Your task to perform on an android device: What's on my calendar tomorrow? Image 0: 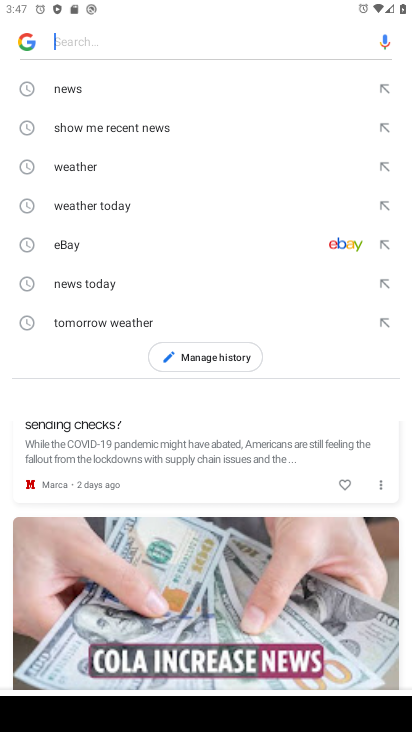
Step 0: press home button
Your task to perform on an android device: What's on my calendar tomorrow? Image 1: 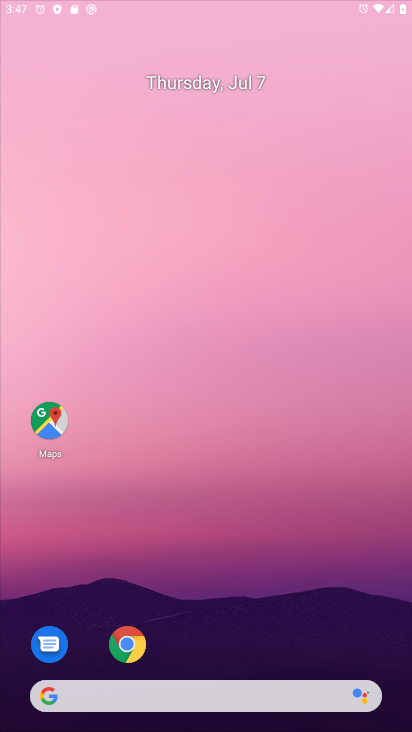
Step 1: drag from (203, 643) to (189, 25)
Your task to perform on an android device: What's on my calendar tomorrow? Image 2: 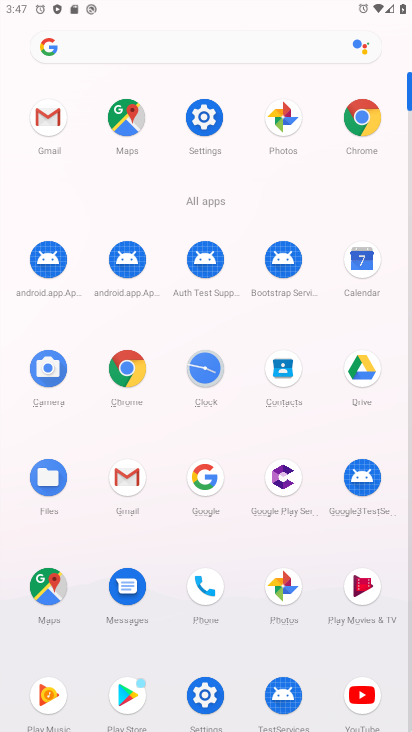
Step 2: click (369, 279)
Your task to perform on an android device: What's on my calendar tomorrow? Image 3: 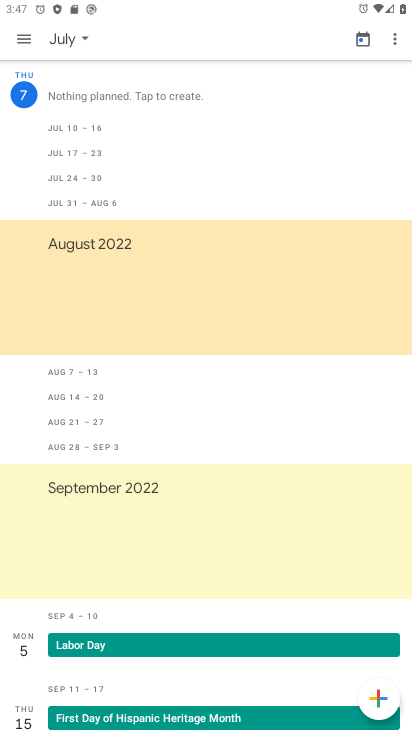
Step 3: click (89, 47)
Your task to perform on an android device: What's on my calendar tomorrow? Image 4: 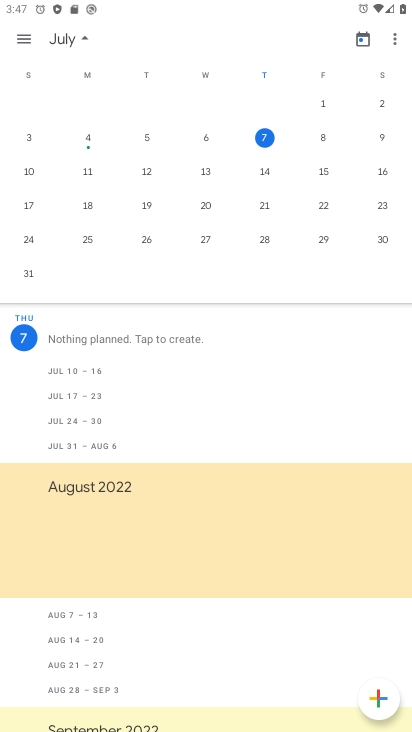
Step 4: drag from (315, 215) to (15, 195)
Your task to perform on an android device: What's on my calendar tomorrow? Image 5: 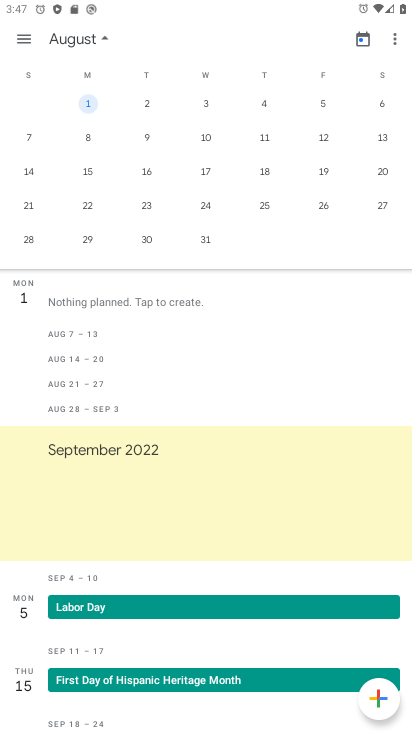
Step 5: drag from (81, 181) to (381, 212)
Your task to perform on an android device: What's on my calendar tomorrow? Image 6: 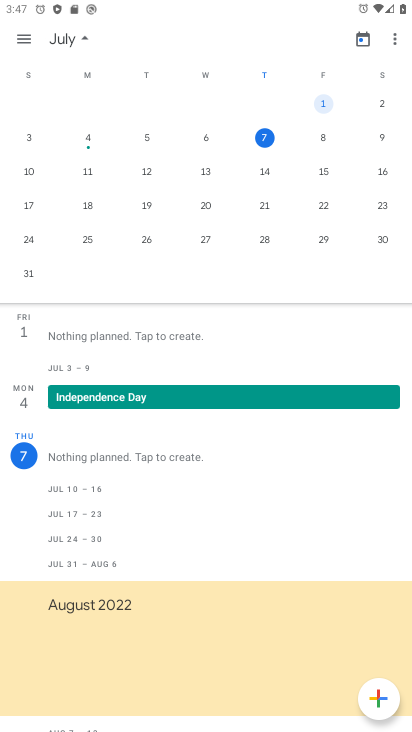
Step 6: click (315, 138)
Your task to perform on an android device: What's on my calendar tomorrow? Image 7: 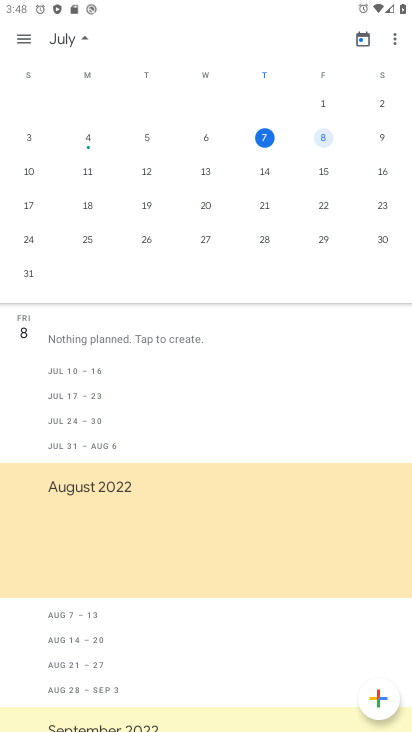
Step 7: task complete